Your task to perform on an android device: Go to network settings Image 0: 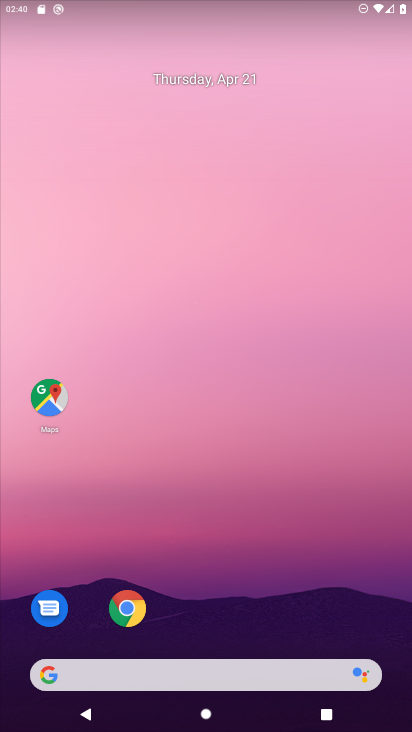
Step 0: drag from (245, 605) to (301, 185)
Your task to perform on an android device: Go to network settings Image 1: 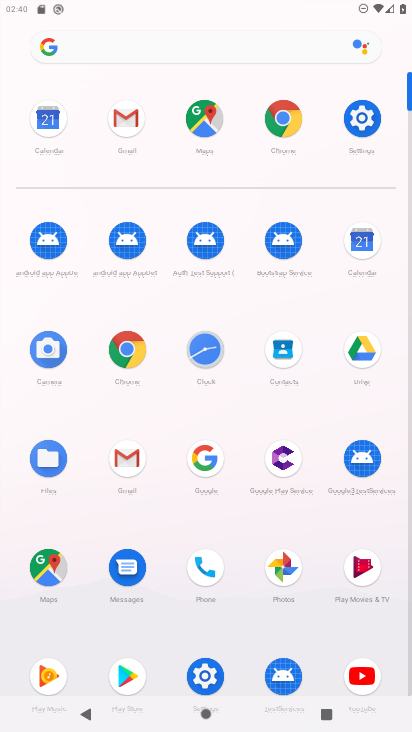
Step 1: click (368, 121)
Your task to perform on an android device: Go to network settings Image 2: 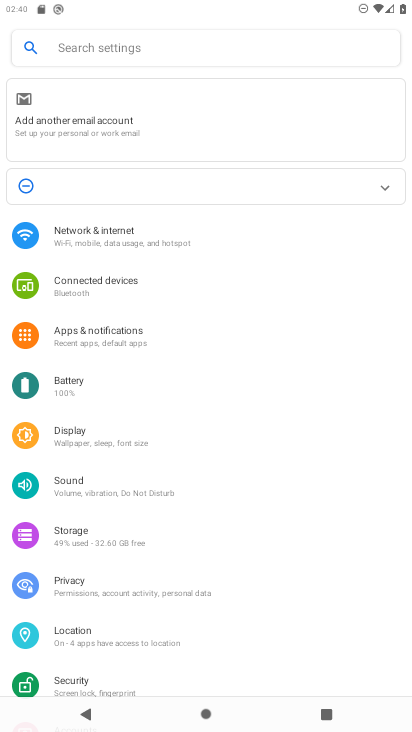
Step 2: click (145, 234)
Your task to perform on an android device: Go to network settings Image 3: 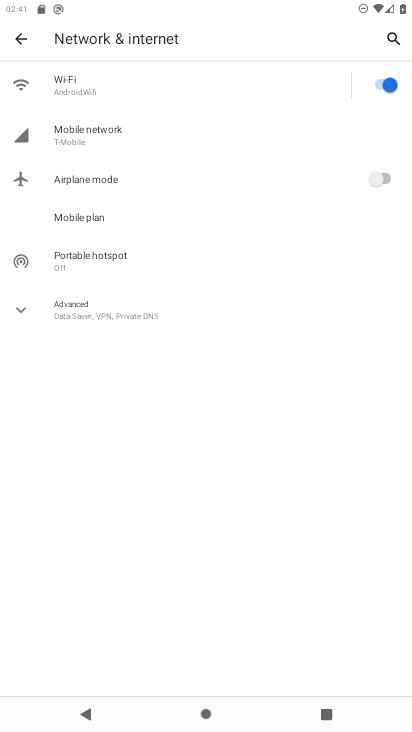
Step 3: task complete